Your task to perform on an android device: Open settings Image 0: 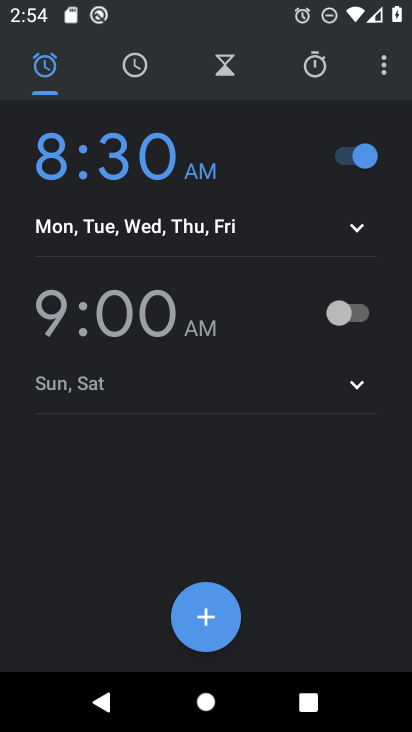
Step 0: click (256, 452)
Your task to perform on an android device: Open settings Image 1: 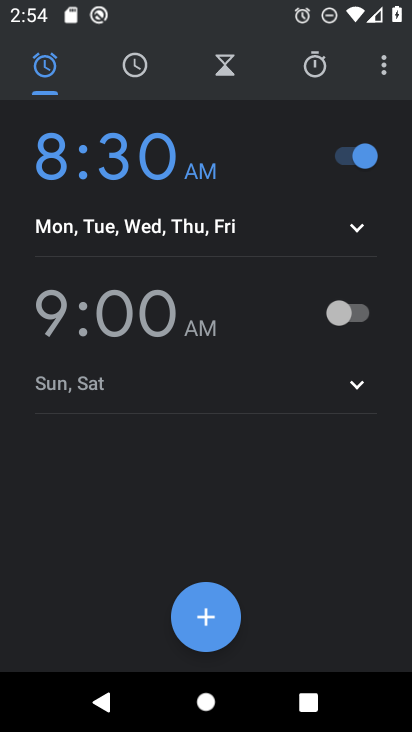
Step 1: press home button
Your task to perform on an android device: Open settings Image 2: 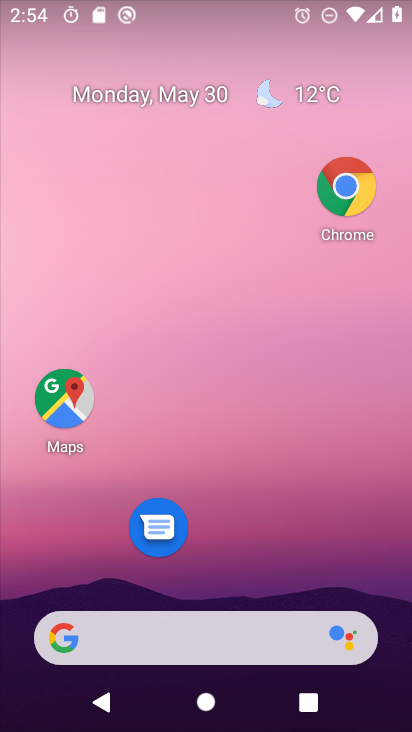
Step 2: drag from (201, 570) to (221, 163)
Your task to perform on an android device: Open settings Image 3: 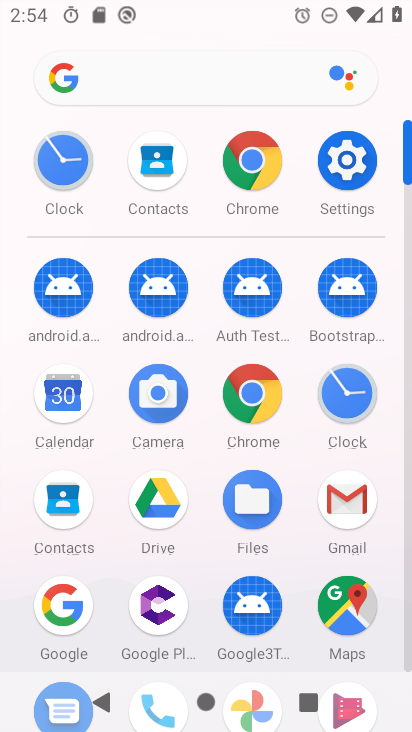
Step 3: click (348, 156)
Your task to perform on an android device: Open settings Image 4: 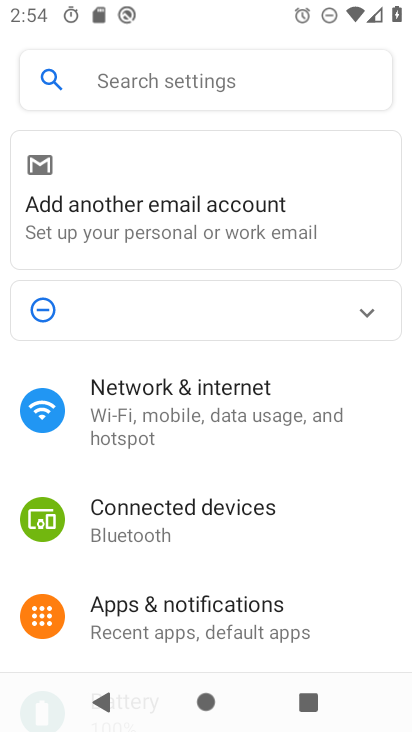
Step 4: task complete